Your task to perform on an android device: turn pop-ups on in chrome Image 0: 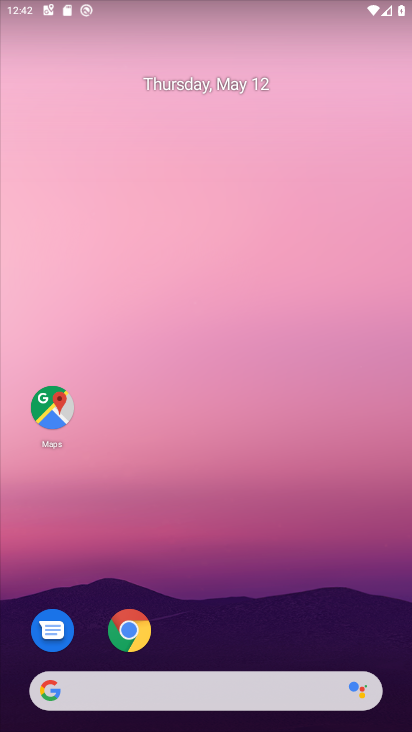
Step 0: drag from (251, 647) to (227, 54)
Your task to perform on an android device: turn pop-ups on in chrome Image 1: 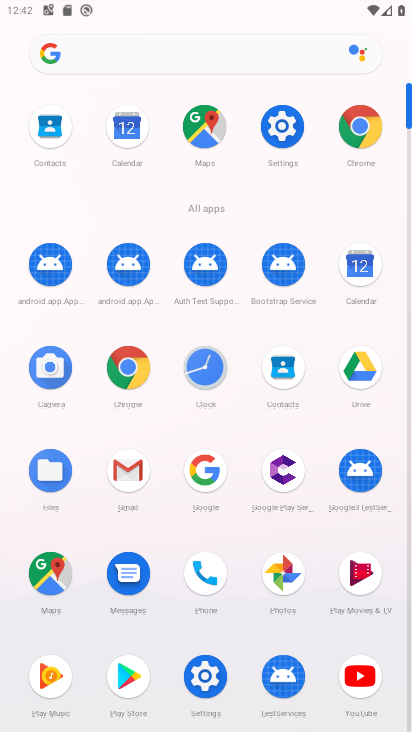
Step 1: click (130, 369)
Your task to perform on an android device: turn pop-ups on in chrome Image 2: 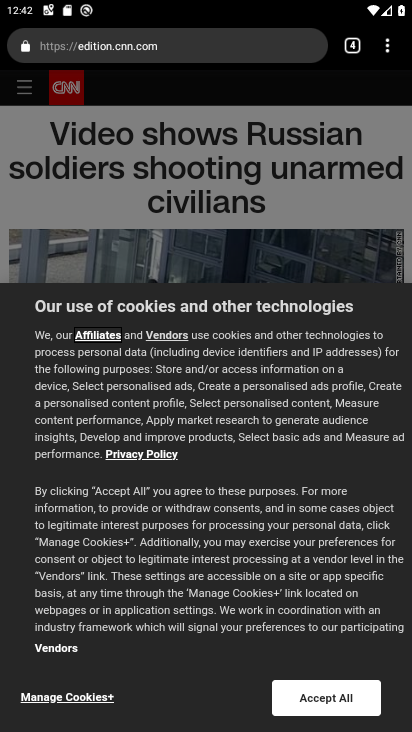
Step 2: drag from (384, 40) to (228, 518)
Your task to perform on an android device: turn pop-ups on in chrome Image 3: 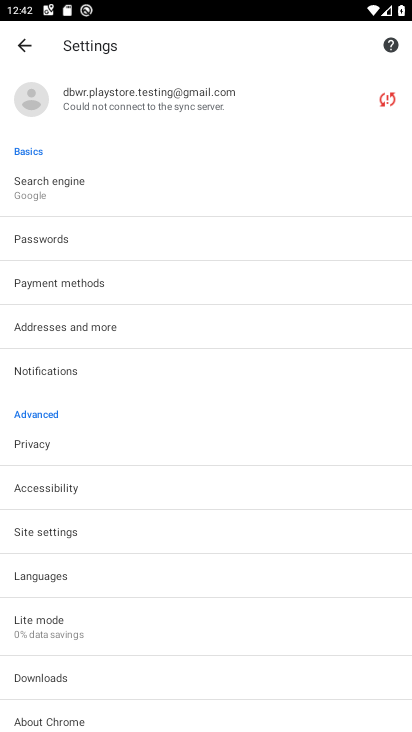
Step 3: drag from (220, 671) to (211, 336)
Your task to perform on an android device: turn pop-ups on in chrome Image 4: 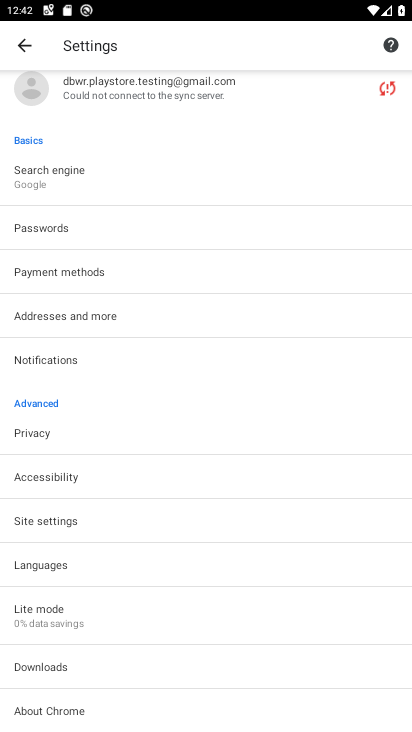
Step 4: click (41, 515)
Your task to perform on an android device: turn pop-ups on in chrome Image 5: 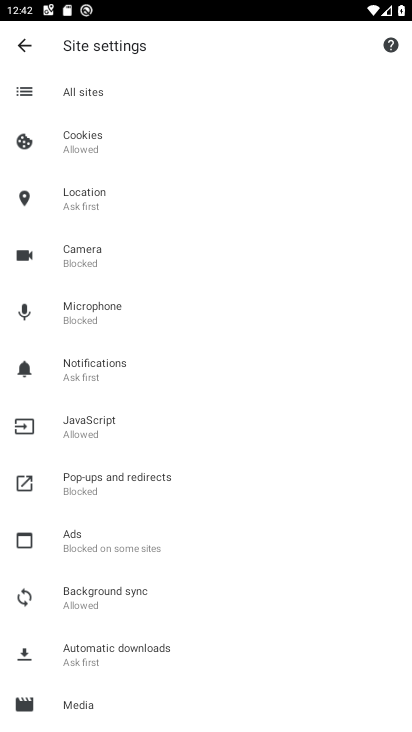
Step 5: click (110, 484)
Your task to perform on an android device: turn pop-ups on in chrome Image 6: 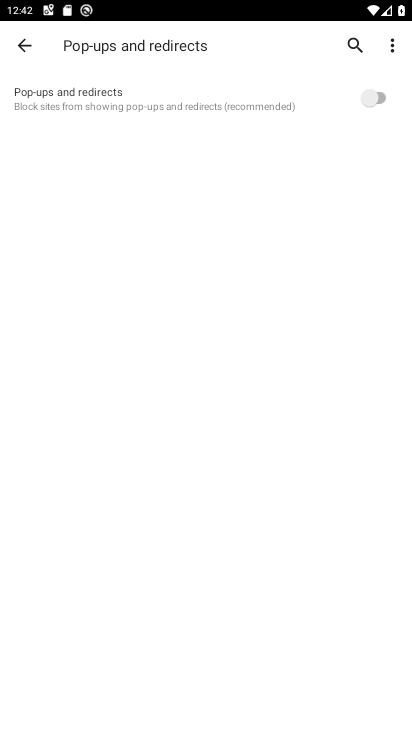
Step 6: click (379, 92)
Your task to perform on an android device: turn pop-ups on in chrome Image 7: 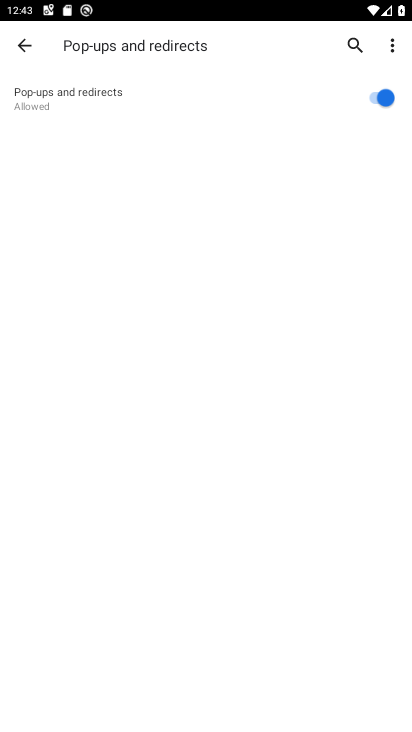
Step 7: task complete